Your task to perform on an android device: Go to network settings Image 0: 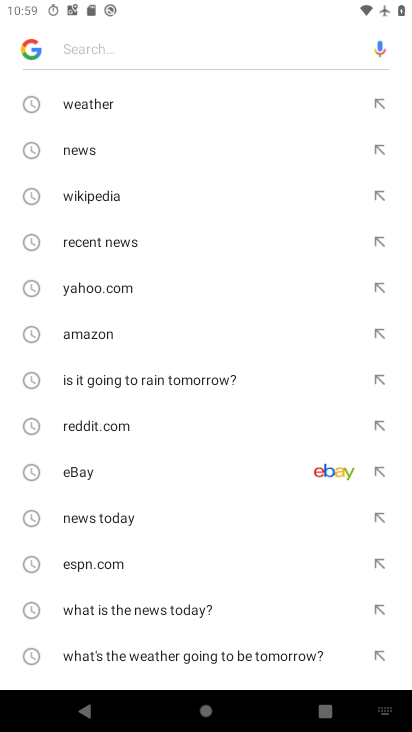
Step 0: press home button
Your task to perform on an android device: Go to network settings Image 1: 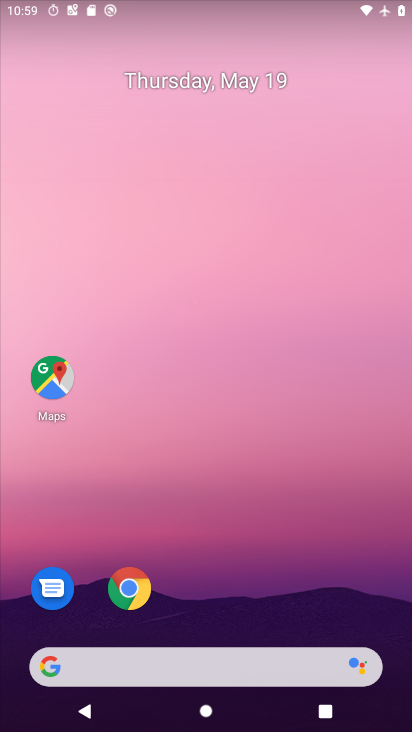
Step 1: drag from (184, 667) to (290, 120)
Your task to perform on an android device: Go to network settings Image 2: 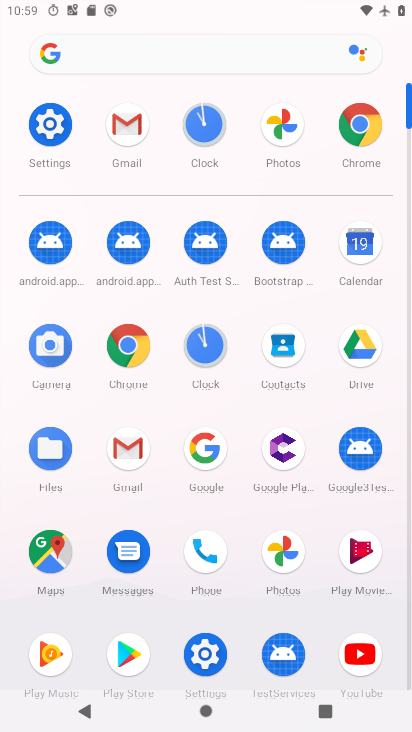
Step 2: click (50, 126)
Your task to perform on an android device: Go to network settings Image 3: 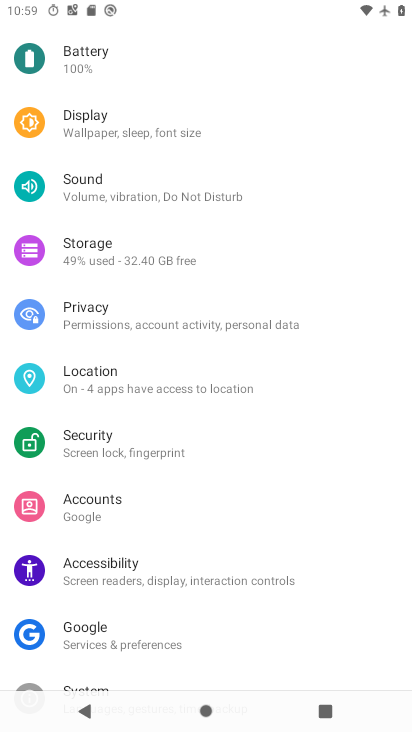
Step 3: drag from (296, 96) to (256, 612)
Your task to perform on an android device: Go to network settings Image 4: 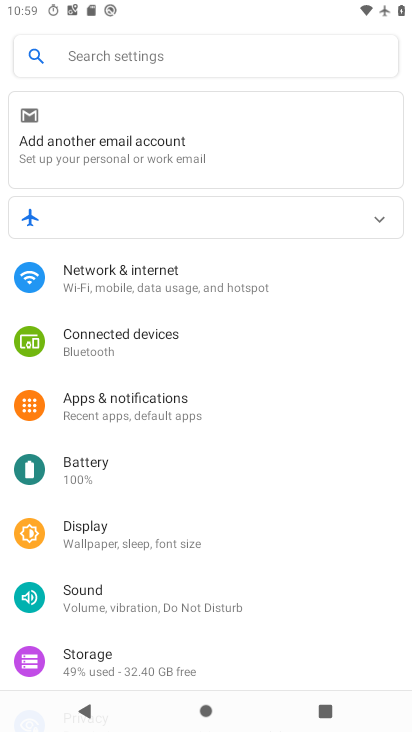
Step 4: click (147, 266)
Your task to perform on an android device: Go to network settings Image 5: 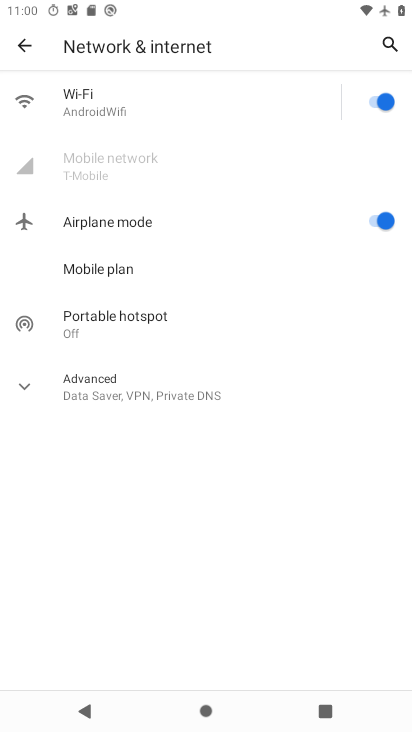
Step 5: task complete